Your task to perform on an android device: Open calendar and show me the first week of next month Image 0: 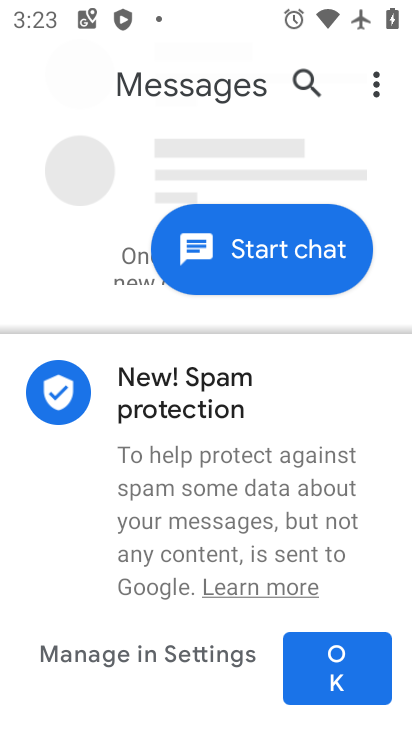
Step 0: press home button
Your task to perform on an android device: Open calendar and show me the first week of next month Image 1: 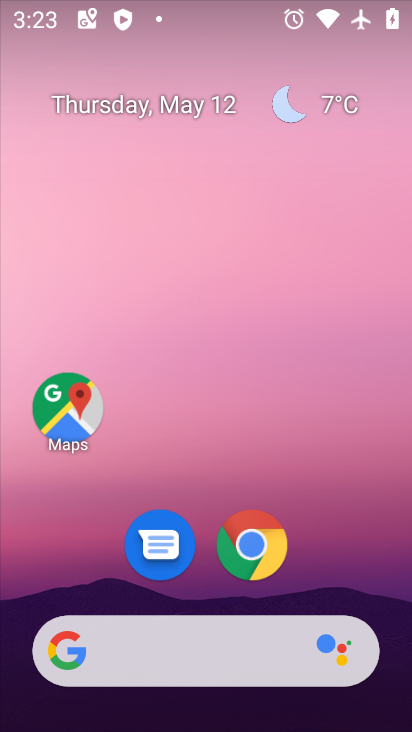
Step 1: drag from (380, 617) to (215, 71)
Your task to perform on an android device: Open calendar and show me the first week of next month Image 2: 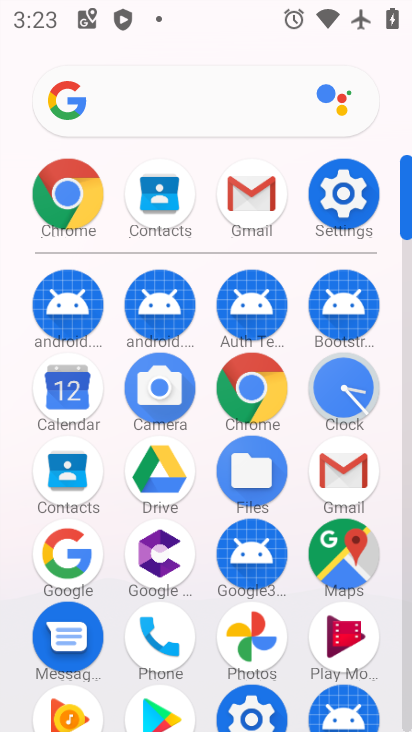
Step 2: click (66, 392)
Your task to perform on an android device: Open calendar and show me the first week of next month Image 3: 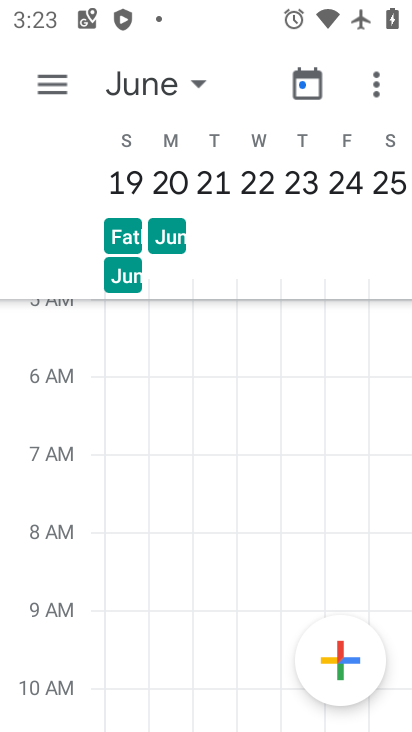
Step 3: click (190, 83)
Your task to perform on an android device: Open calendar and show me the first week of next month Image 4: 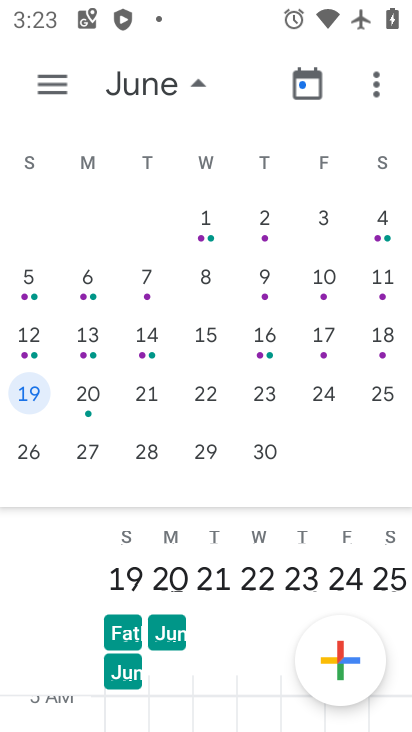
Step 4: click (200, 227)
Your task to perform on an android device: Open calendar and show me the first week of next month Image 5: 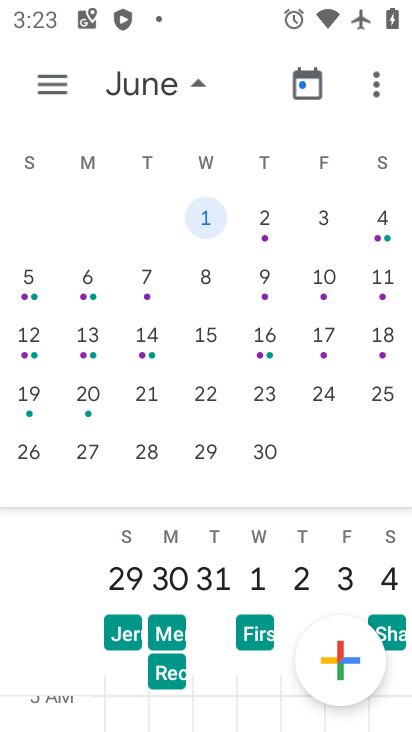
Step 5: task complete